Your task to perform on an android device: Open Youtube and go to "Your channel" Image 0: 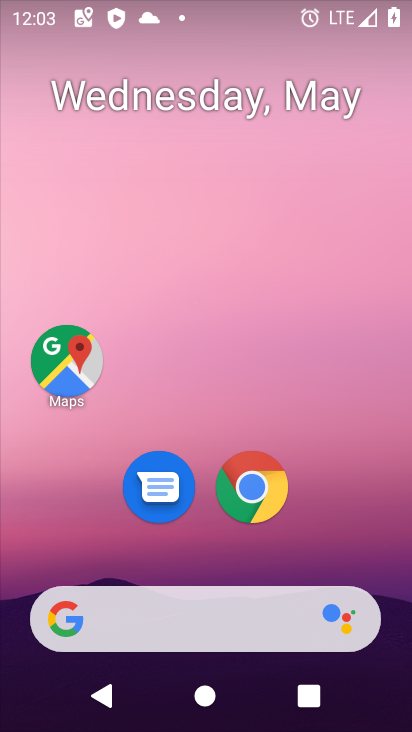
Step 0: drag from (199, 558) to (199, 203)
Your task to perform on an android device: Open Youtube and go to "Your channel" Image 1: 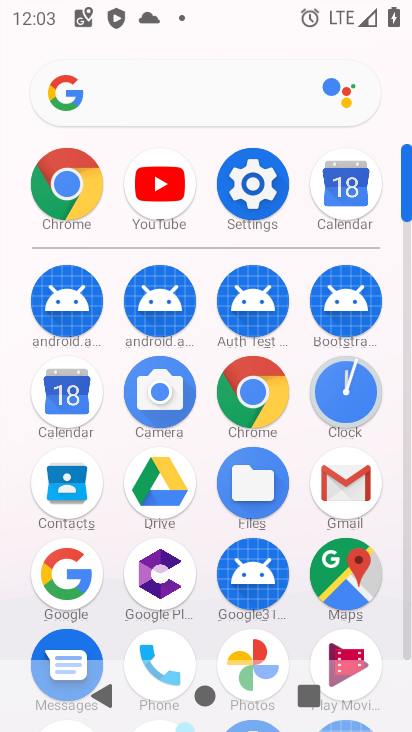
Step 1: drag from (201, 638) to (203, 452)
Your task to perform on an android device: Open Youtube and go to "Your channel" Image 2: 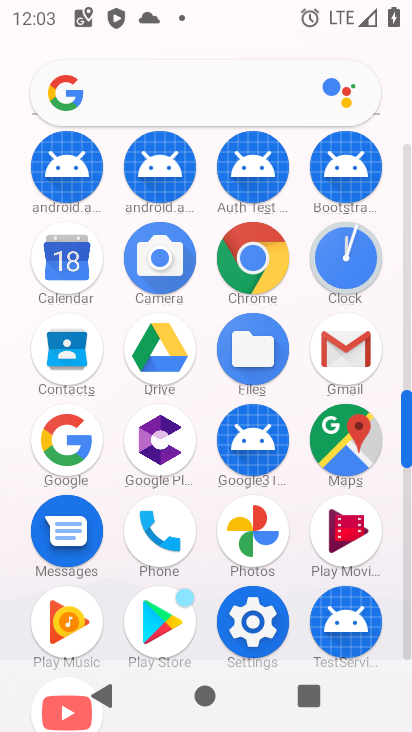
Step 2: drag from (203, 443) to (222, 644)
Your task to perform on an android device: Open Youtube and go to "Your channel" Image 3: 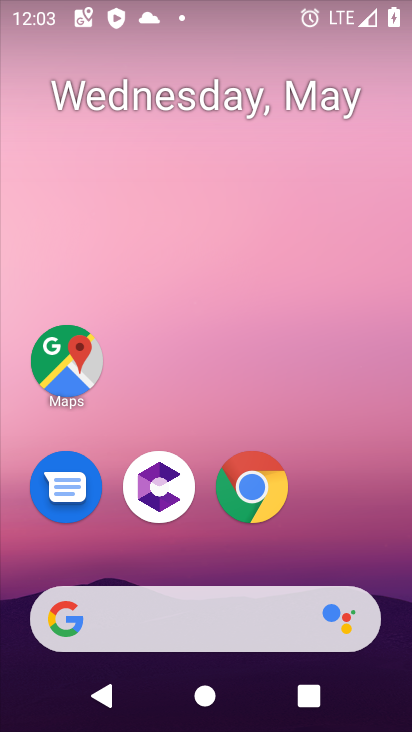
Step 3: drag from (167, 495) to (104, 85)
Your task to perform on an android device: Open Youtube and go to "Your channel" Image 4: 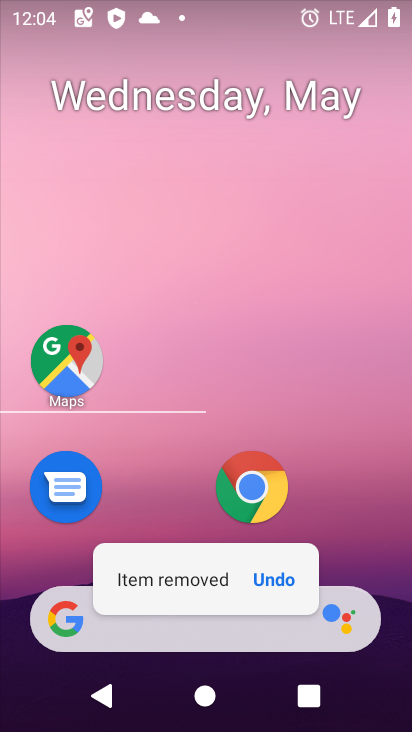
Step 4: drag from (165, 551) to (242, 77)
Your task to perform on an android device: Open Youtube and go to "Your channel" Image 5: 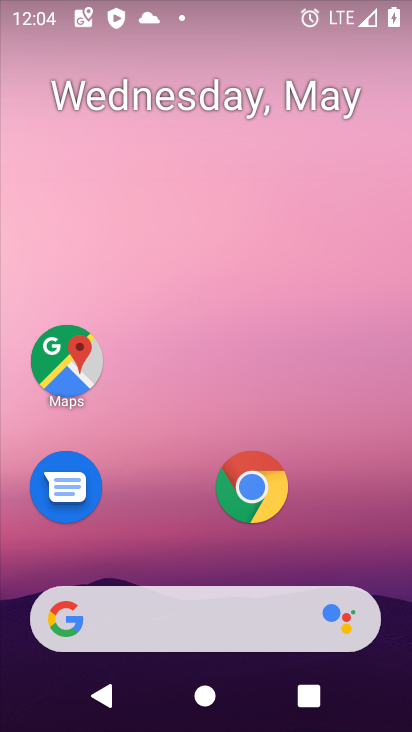
Step 5: drag from (181, 514) to (261, 72)
Your task to perform on an android device: Open Youtube and go to "Your channel" Image 6: 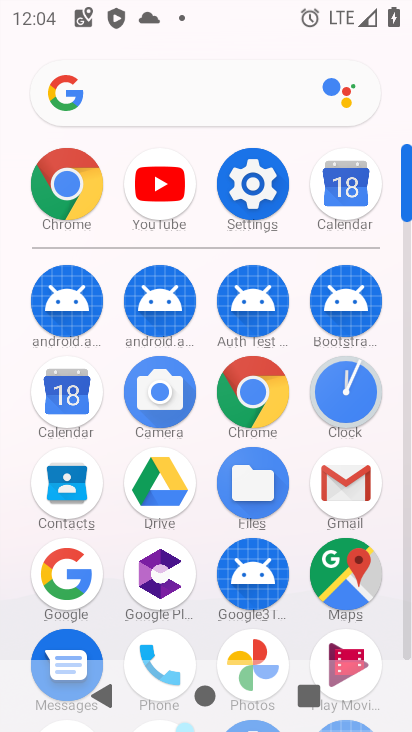
Step 6: click (161, 195)
Your task to perform on an android device: Open Youtube and go to "Your channel" Image 7: 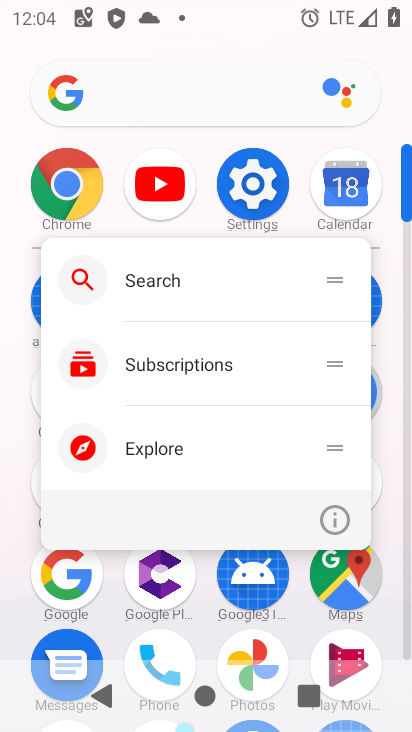
Step 7: click (336, 528)
Your task to perform on an android device: Open Youtube and go to "Your channel" Image 8: 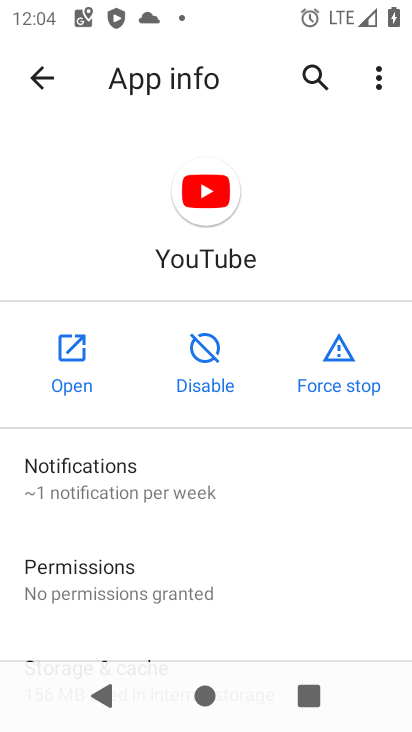
Step 8: click (57, 378)
Your task to perform on an android device: Open Youtube and go to "Your channel" Image 9: 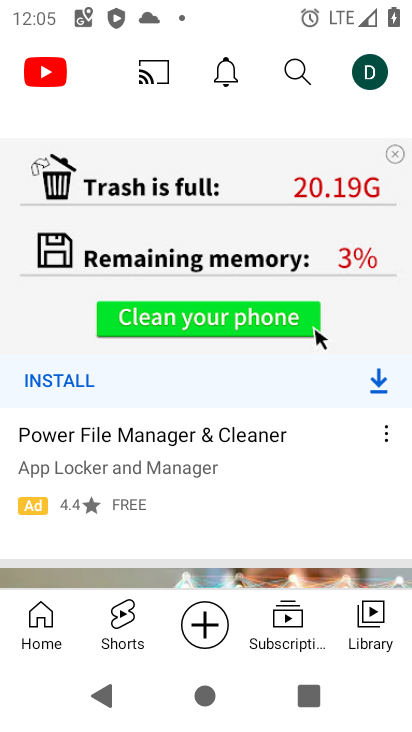
Step 9: click (376, 78)
Your task to perform on an android device: Open Youtube and go to "Your channel" Image 10: 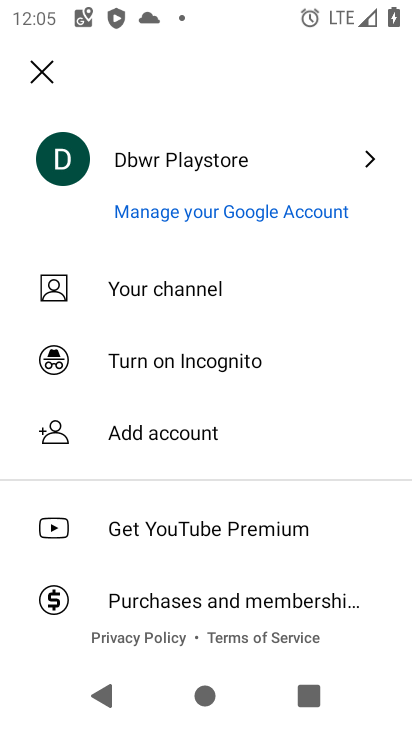
Step 10: click (254, 161)
Your task to perform on an android device: Open Youtube and go to "Your channel" Image 11: 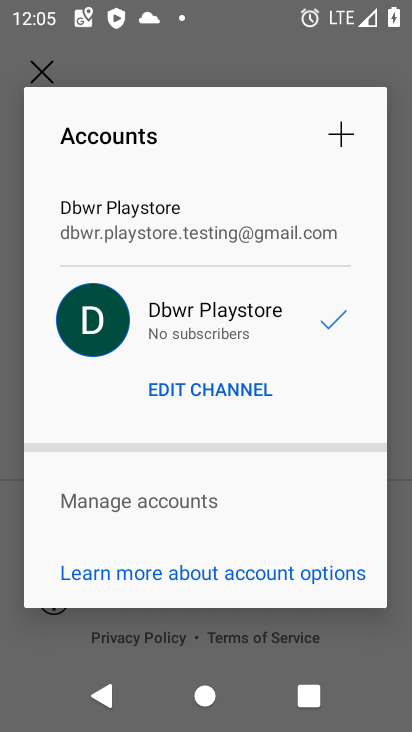
Step 11: task complete